Your task to perform on an android device: Search for pizza restaurants on Maps Image 0: 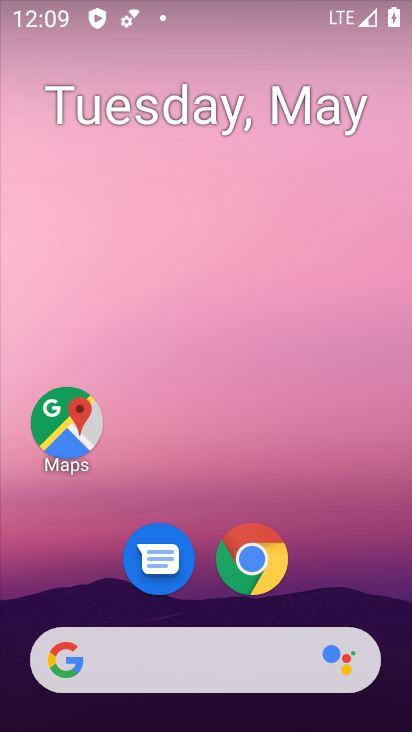
Step 0: click (60, 439)
Your task to perform on an android device: Search for pizza restaurants on Maps Image 1: 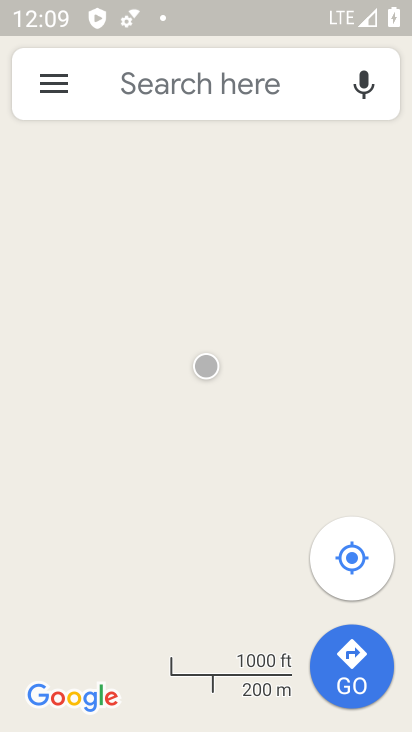
Step 1: click (193, 93)
Your task to perform on an android device: Search for pizza restaurants on Maps Image 2: 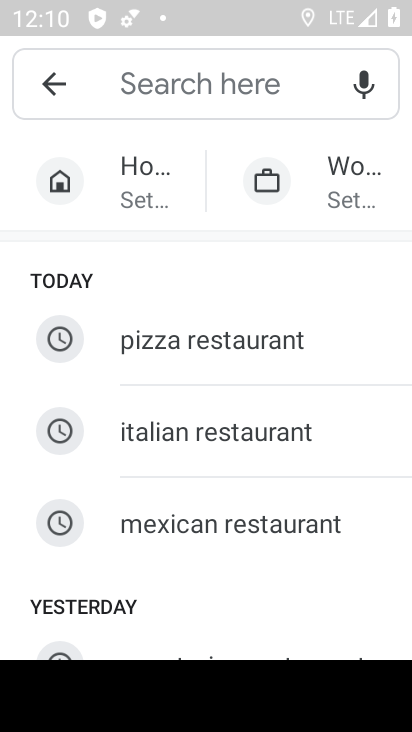
Step 2: type "pizza restaurants"
Your task to perform on an android device: Search for pizza restaurants on Maps Image 3: 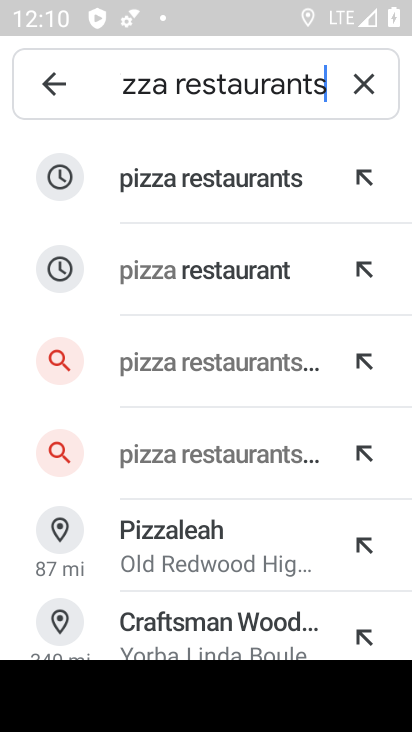
Step 3: click (244, 172)
Your task to perform on an android device: Search for pizza restaurants on Maps Image 4: 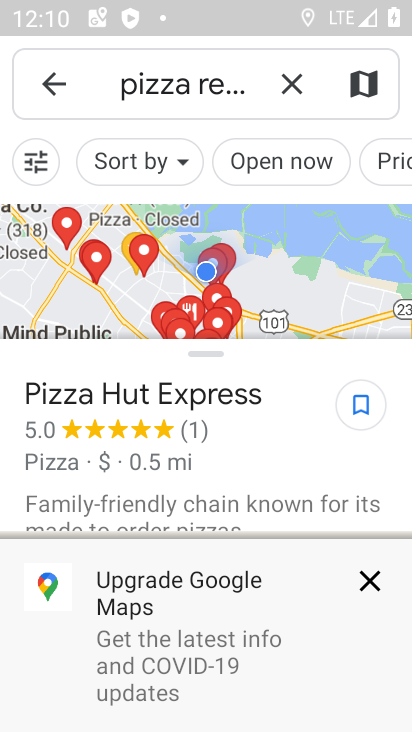
Step 4: click (370, 579)
Your task to perform on an android device: Search for pizza restaurants on Maps Image 5: 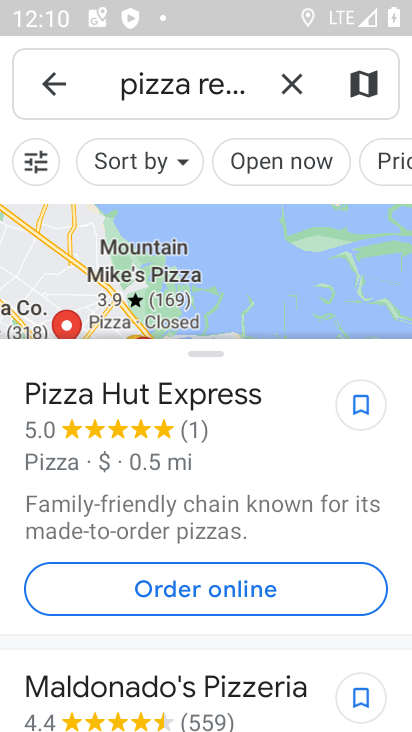
Step 5: task complete